Your task to perform on an android device: Go to CNN.com Image 0: 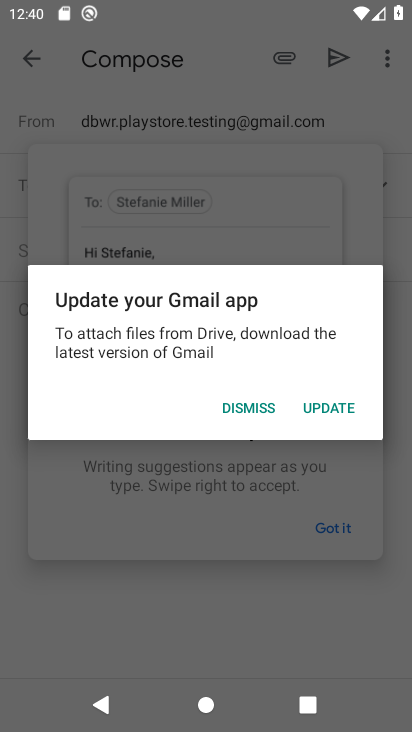
Step 0: press home button
Your task to perform on an android device: Go to CNN.com Image 1: 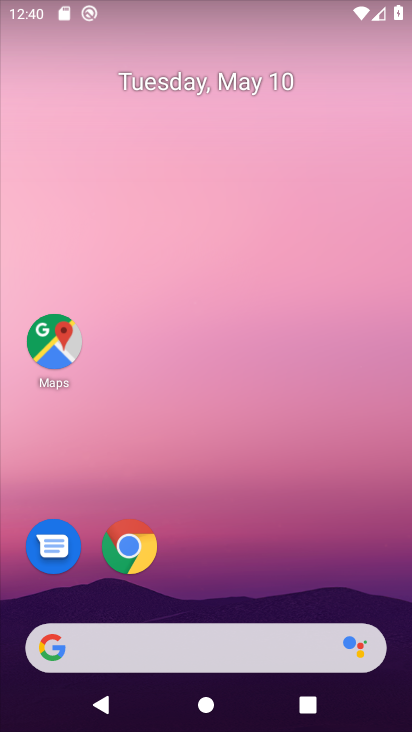
Step 1: click (122, 530)
Your task to perform on an android device: Go to CNN.com Image 2: 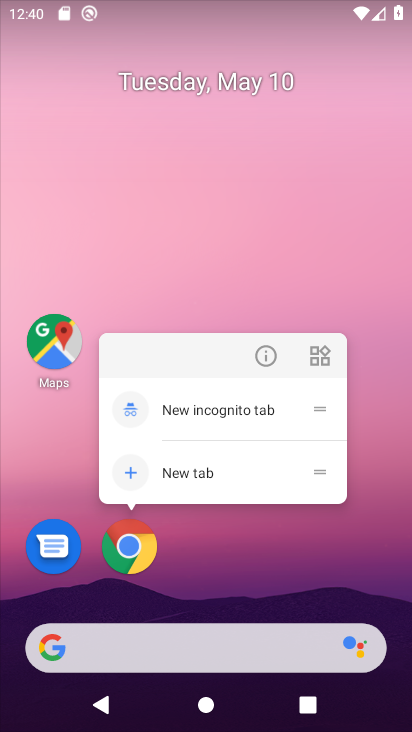
Step 2: click (128, 533)
Your task to perform on an android device: Go to CNN.com Image 3: 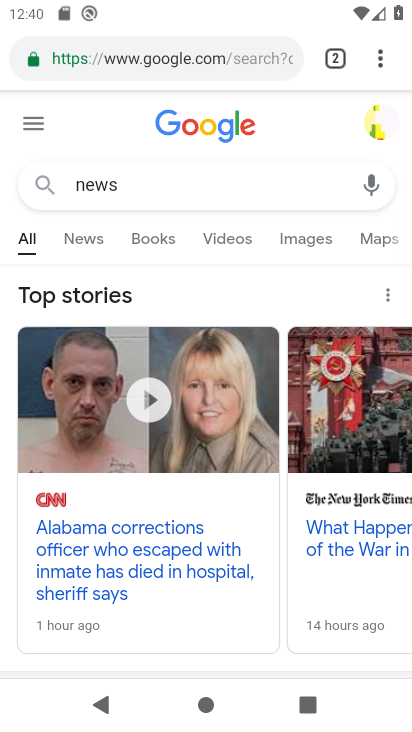
Step 3: click (264, 187)
Your task to perform on an android device: Go to CNN.com Image 4: 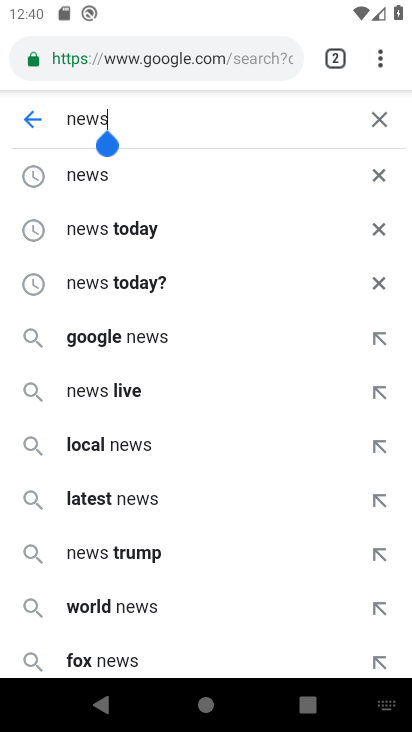
Step 4: click (375, 122)
Your task to perform on an android device: Go to CNN.com Image 5: 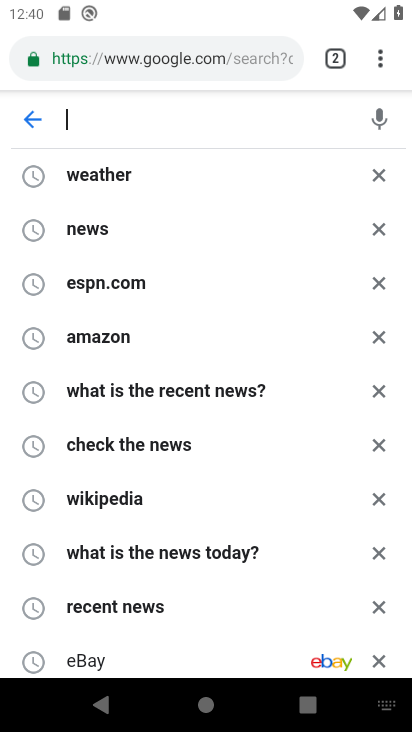
Step 5: type "CNN.com"
Your task to perform on an android device: Go to CNN.com Image 6: 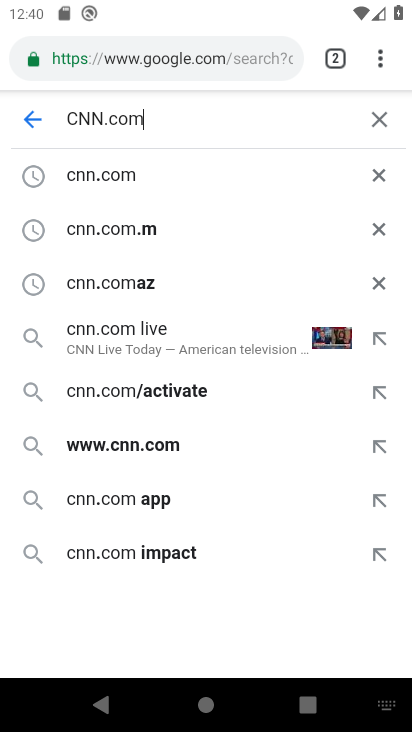
Step 6: click (181, 163)
Your task to perform on an android device: Go to CNN.com Image 7: 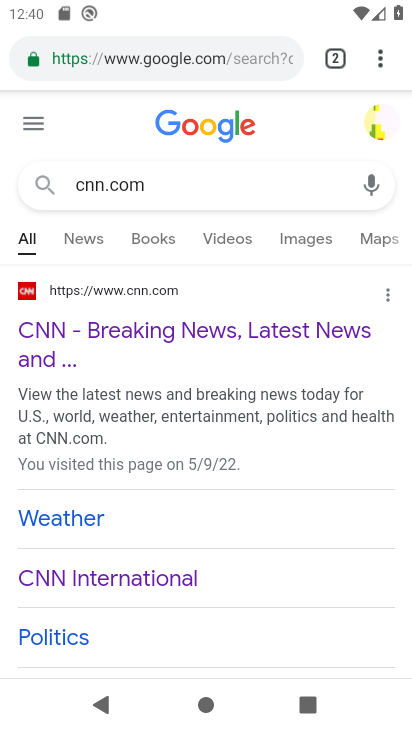
Step 7: click (265, 345)
Your task to perform on an android device: Go to CNN.com Image 8: 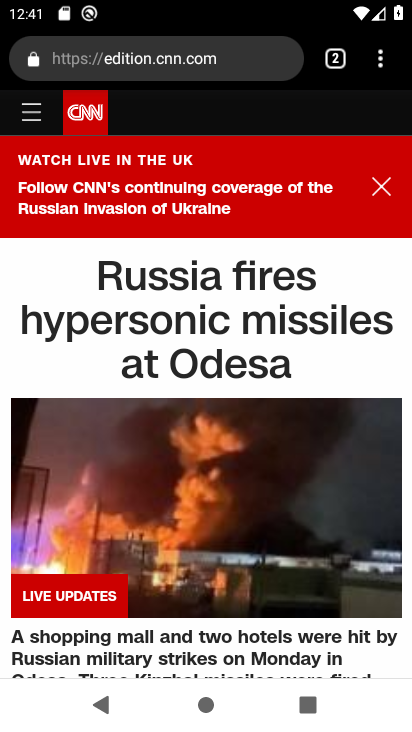
Step 8: task complete